Your task to perform on an android device: add a label to a message in the gmail app Image 0: 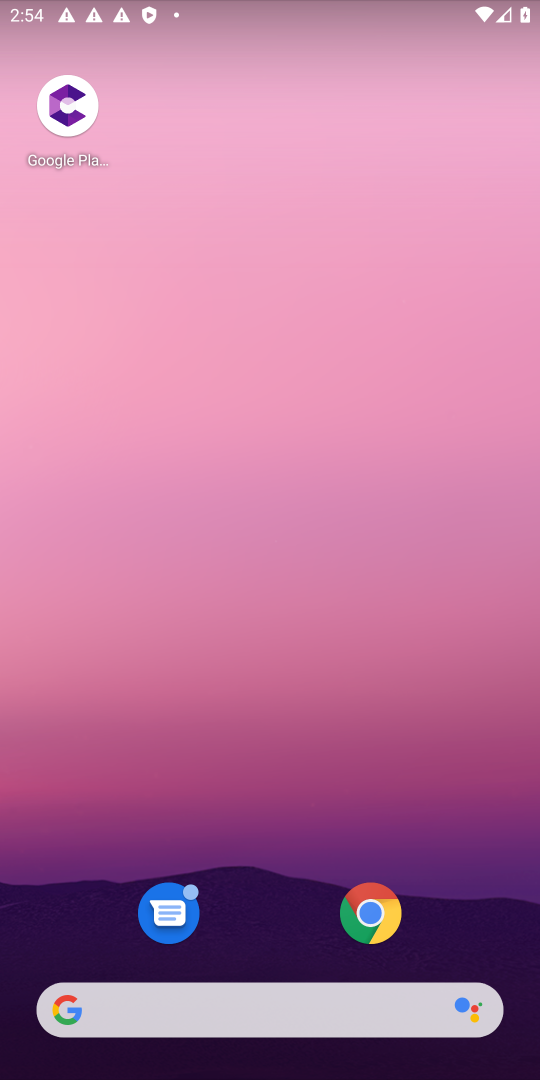
Step 0: drag from (323, 835) to (389, 170)
Your task to perform on an android device: add a label to a message in the gmail app Image 1: 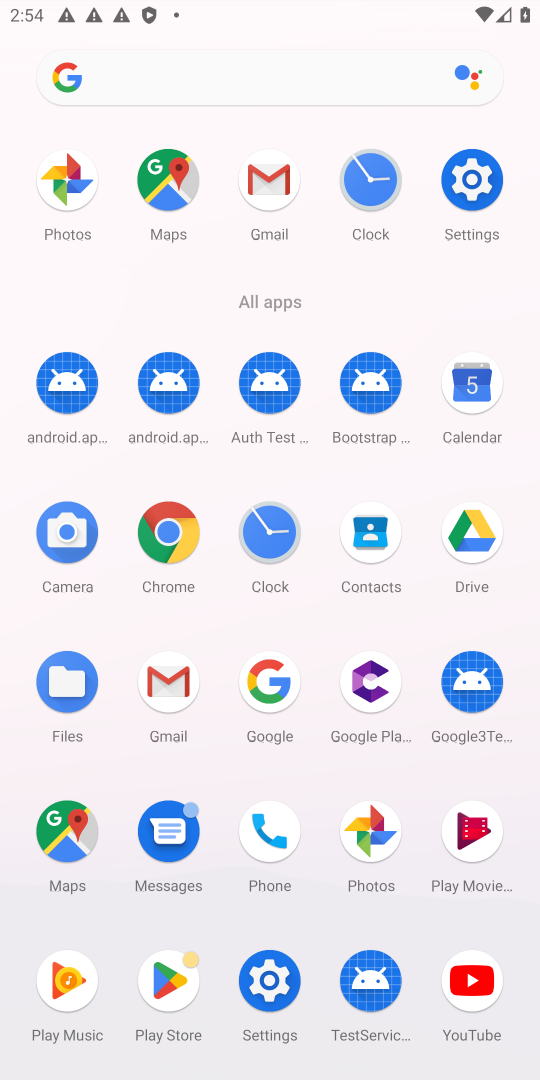
Step 1: click (259, 184)
Your task to perform on an android device: add a label to a message in the gmail app Image 2: 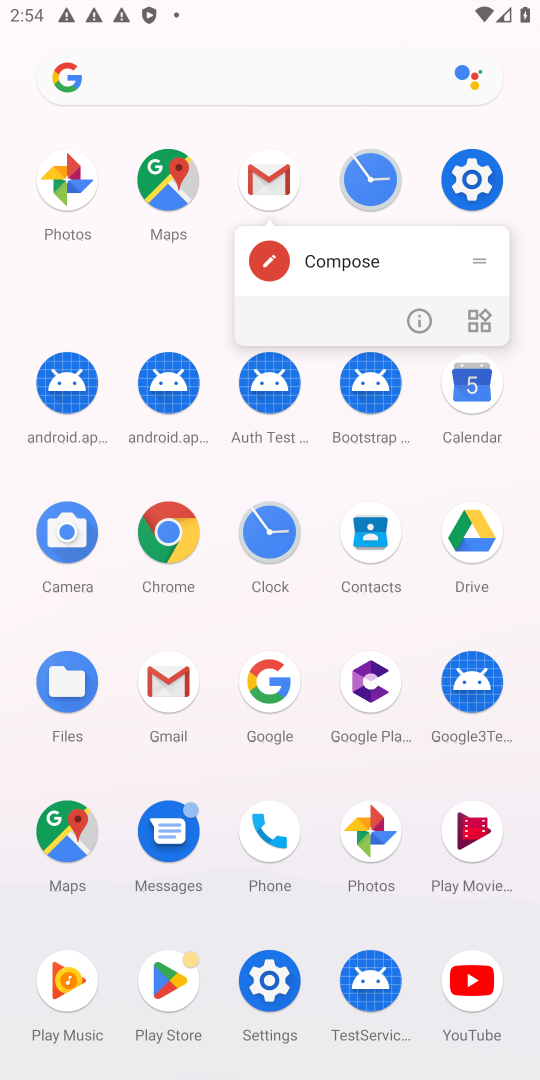
Step 2: click (267, 188)
Your task to perform on an android device: add a label to a message in the gmail app Image 3: 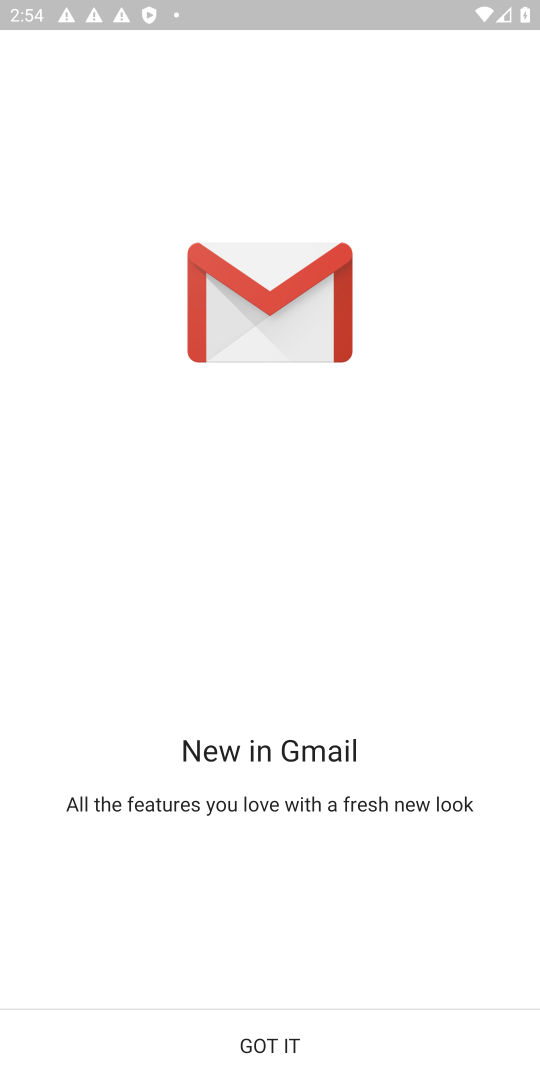
Step 3: click (268, 1037)
Your task to perform on an android device: add a label to a message in the gmail app Image 4: 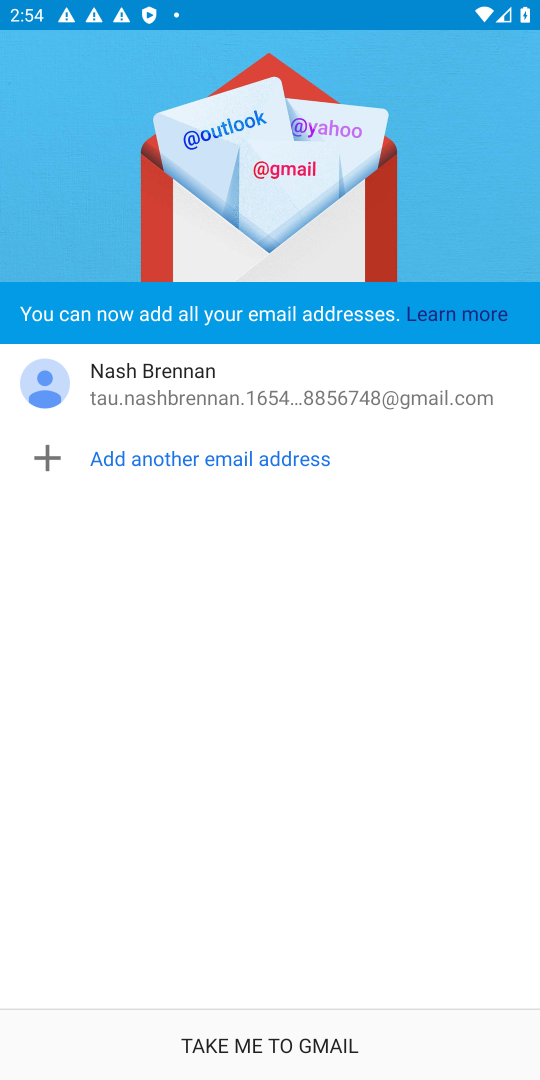
Step 4: click (268, 1034)
Your task to perform on an android device: add a label to a message in the gmail app Image 5: 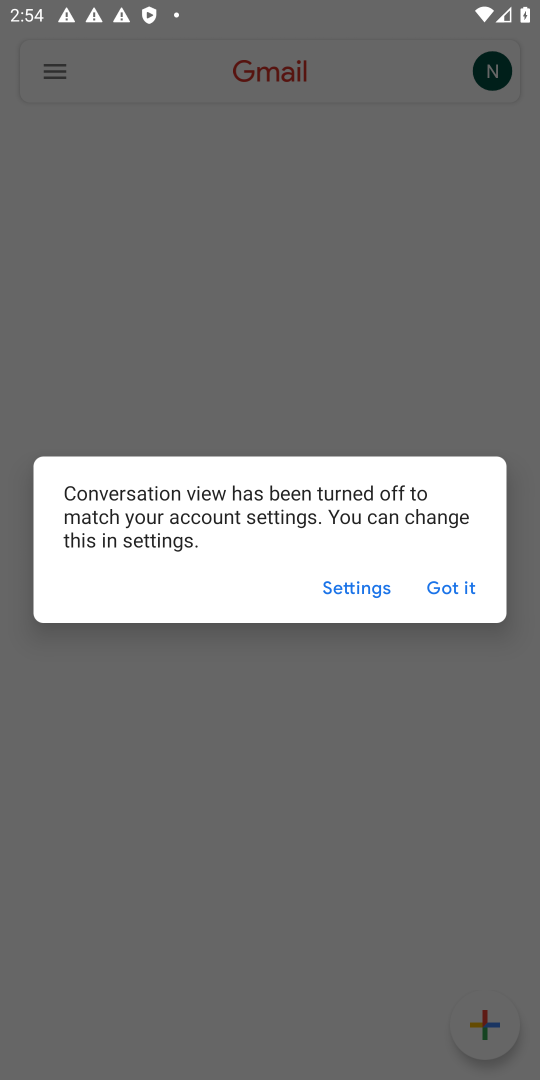
Step 5: click (431, 582)
Your task to perform on an android device: add a label to a message in the gmail app Image 6: 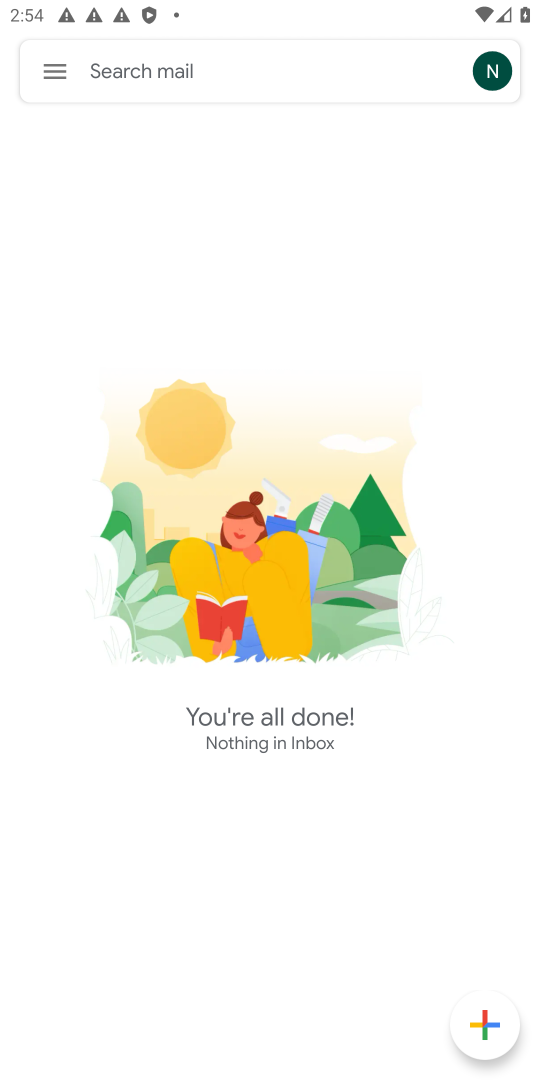
Step 6: click (57, 75)
Your task to perform on an android device: add a label to a message in the gmail app Image 7: 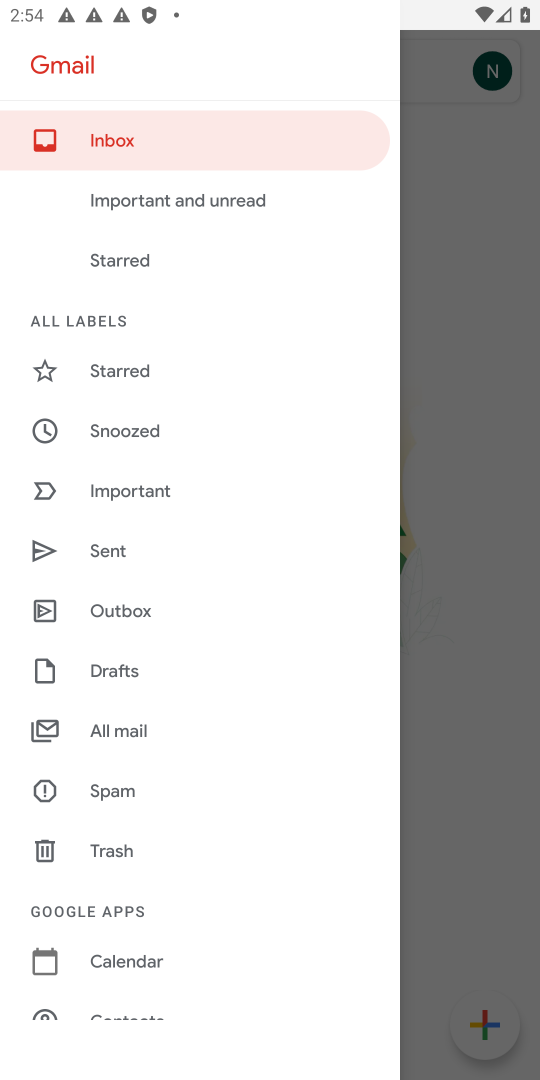
Step 7: drag from (243, 887) to (345, 379)
Your task to perform on an android device: add a label to a message in the gmail app Image 8: 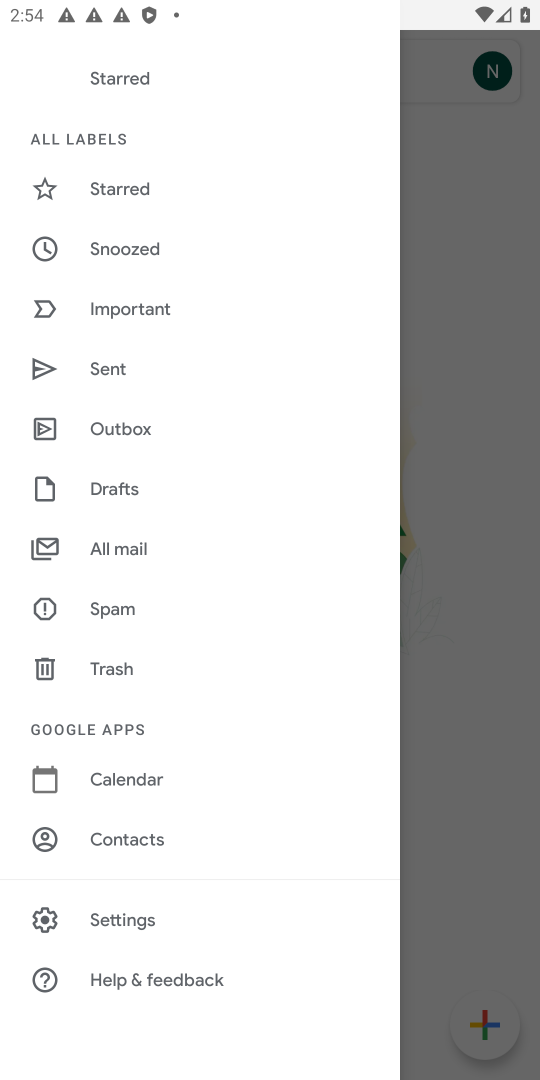
Step 8: click (139, 546)
Your task to perform on an android device: add a label to a message in the gmail app Image 9: 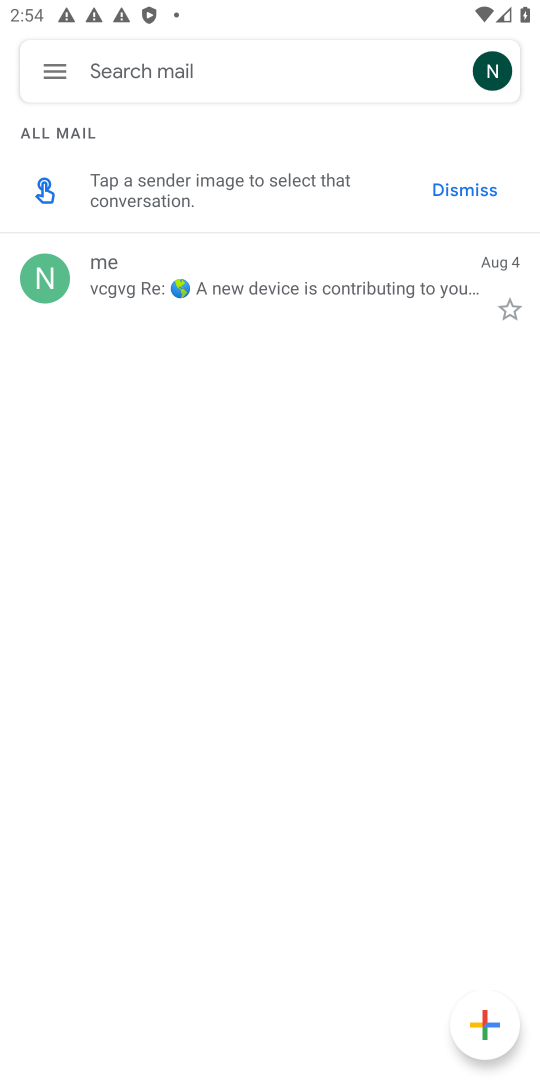
Step 9: click (128, 284)
Your task to perform on an android device: add a label to a message in the gmail app Image 10: 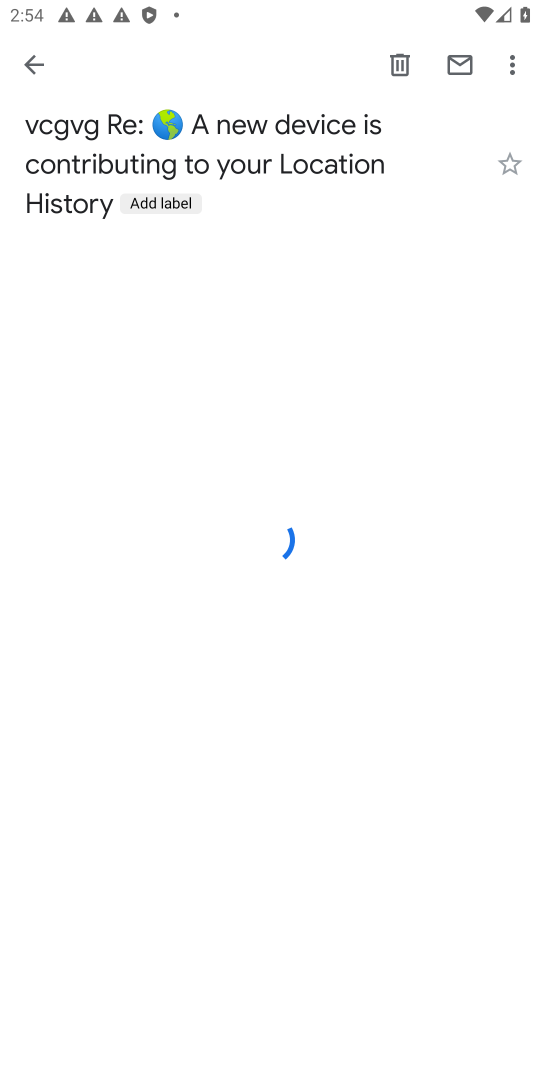
Step 10: click (159, 196)
Your task to perform on an android device: add a label to a message in the gmail app Image 11: 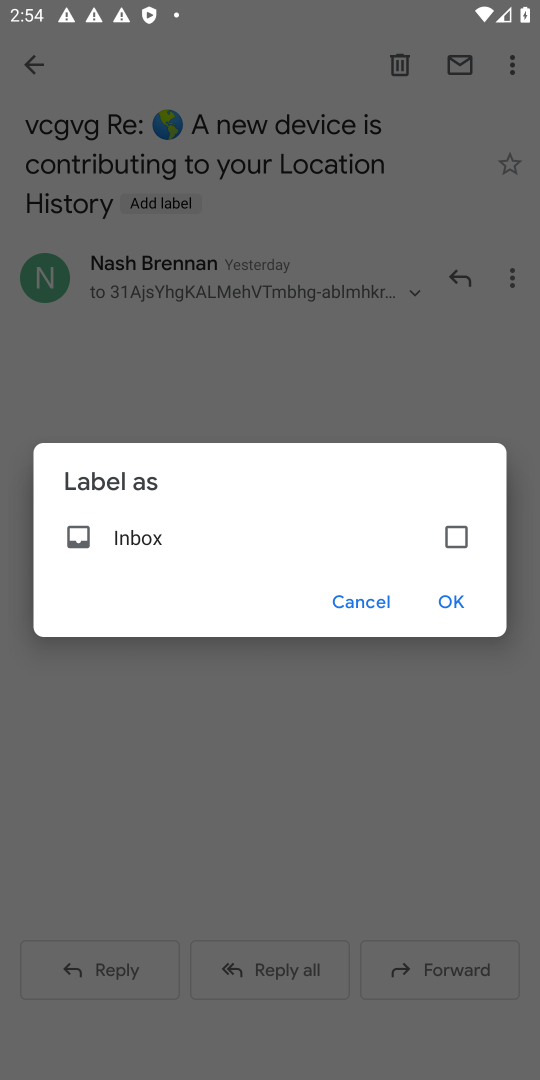
Step 11: click (460, 534)
Your task to perform on an android device: add a label to a message in the gmail app Image 12: 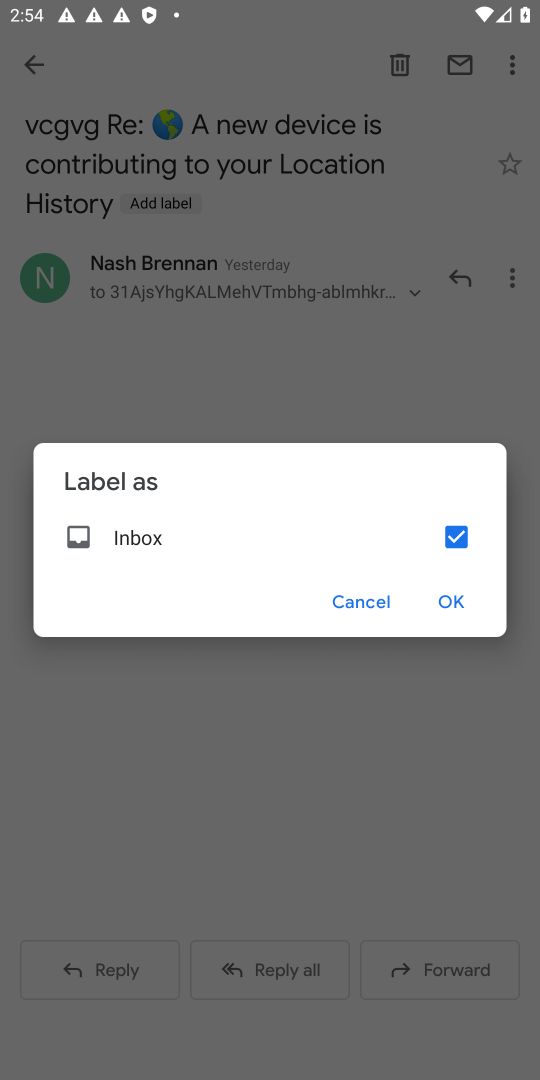
Step 12: click (450, 591)
Your task to perform on an android device: add a label to a message in the gmail app Image 13: 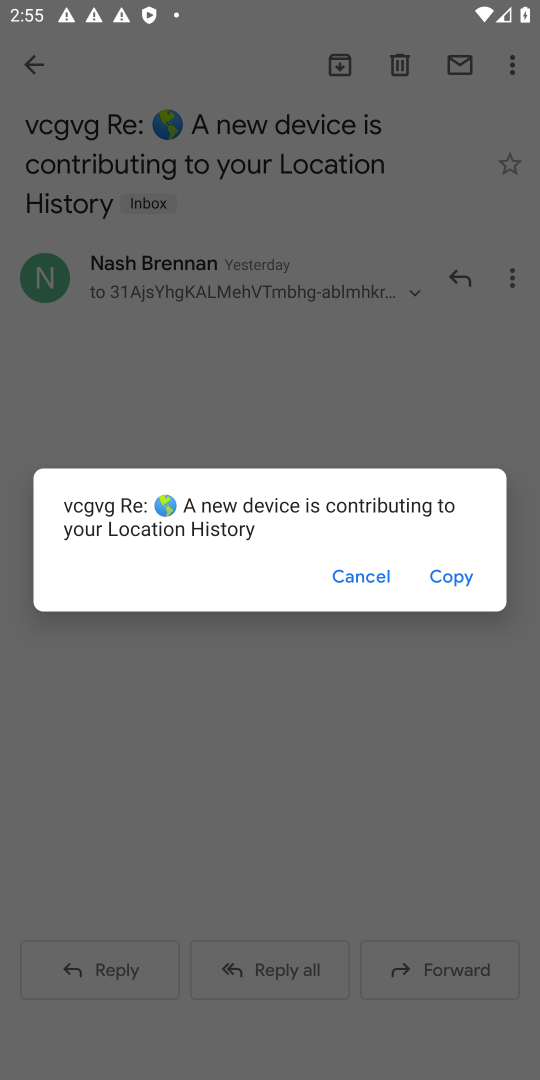
Step 13: task complete